Your task to perform on an android device: turn on sleep mode Image 0: 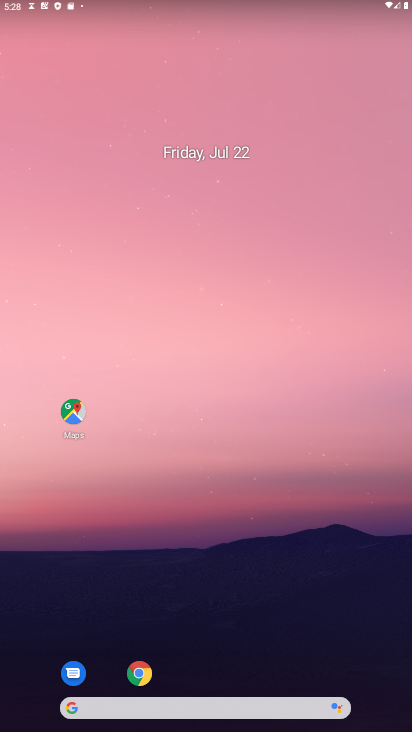
Step 0: press home button
Your task to perform on an android device: turn on sleep mode Image 1: 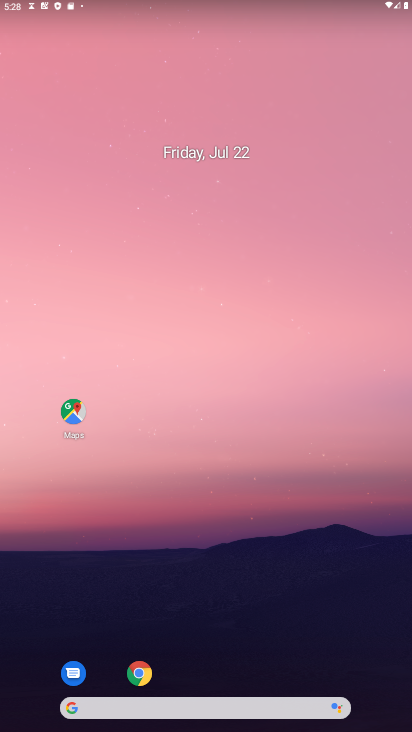
Step 1: drag from (259, 625) to (235, 6)
Your task to perform on an android device: turn on sleep mode Image 2: 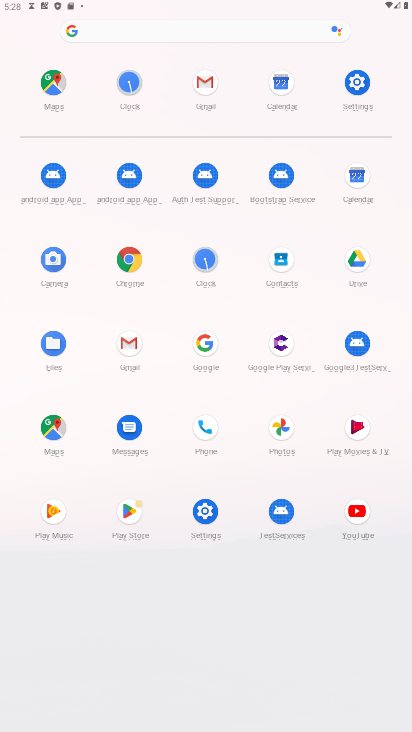
Step 2: click (357, 85)
Your task to perform on an android device: turn on sleep mode Image 3: 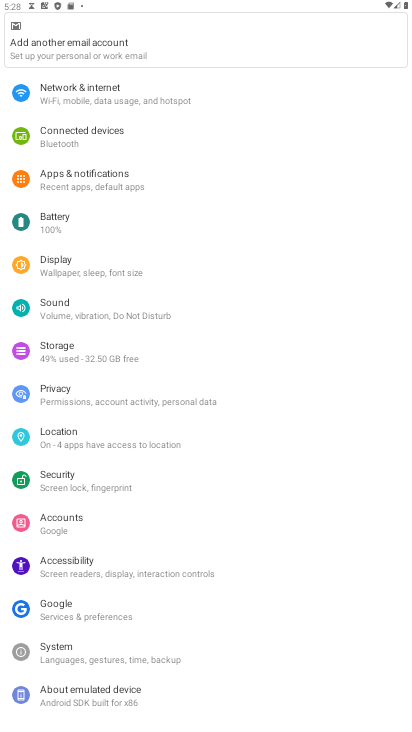
Step 3: click (60, 275)
Your task to perform on an android device: turn on sleep mode Image 4: 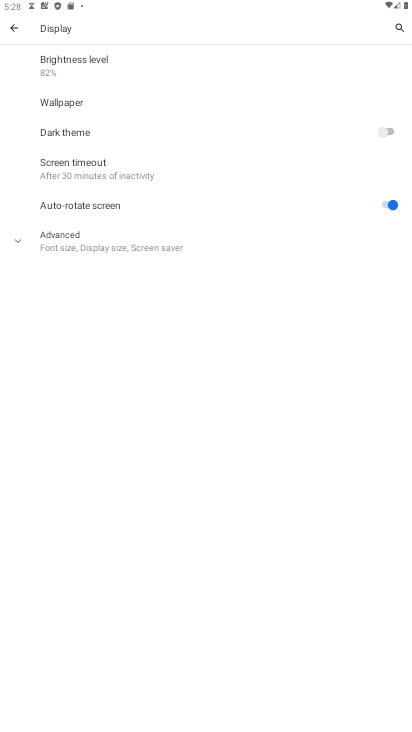
Step 4: task complete